Your task to perform on an android device: What is the news today? Image 0: 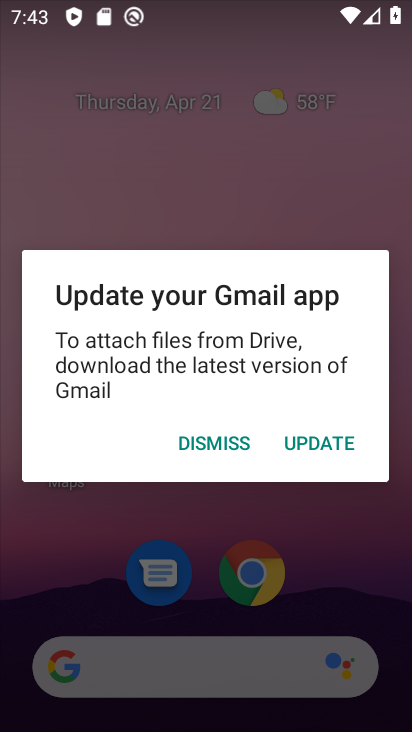
Step 0: press home button
Your task to perform on an android device: What is the news today? Image 1: 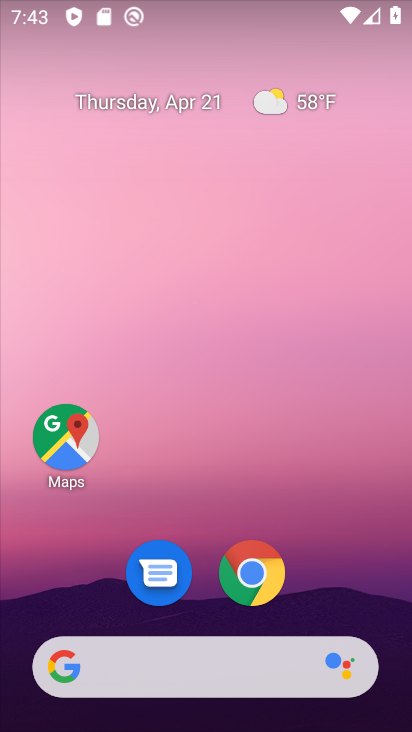
Step 1: drag from (169, 637) to (189, 302)
Your task to perform on an android device: What is the news today? Image 2: 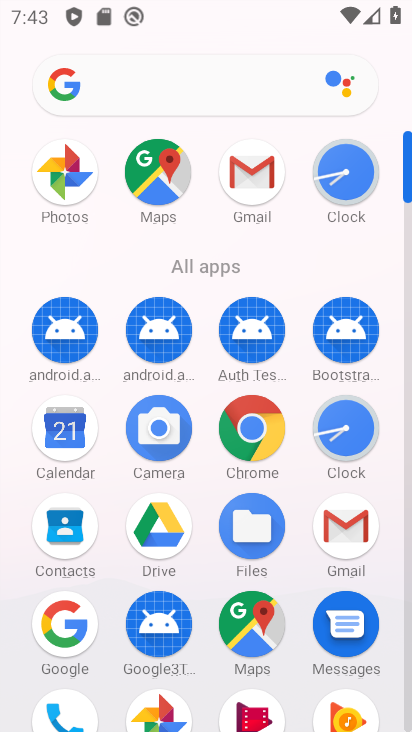
Step 2: click (59, 617)
Your task to perform on an android device: What is the news today? Image 3: 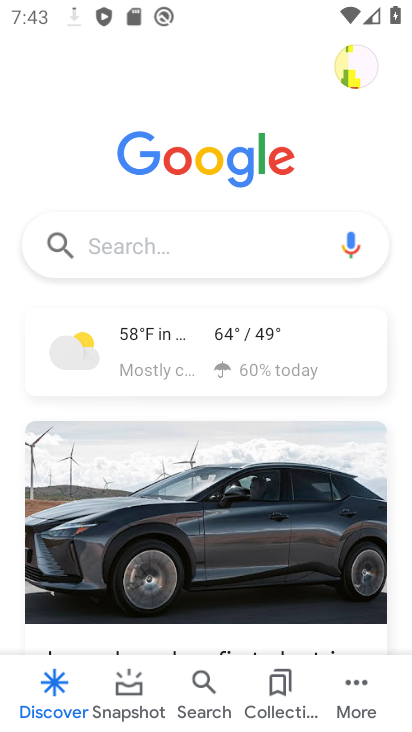
Step 3: click (155, 243)
Your task to perform on an android device: What is the news today? Image 4: 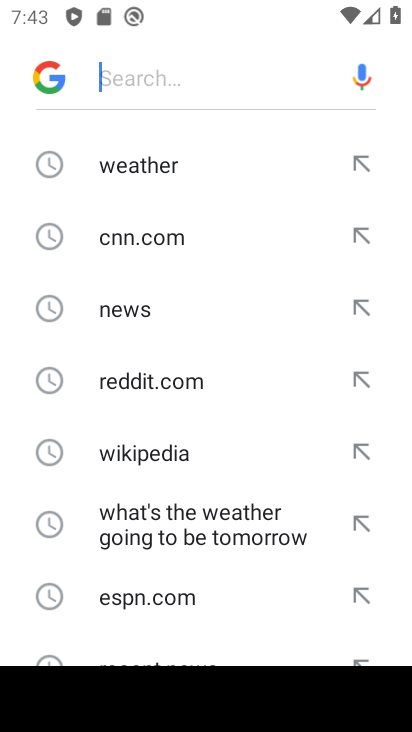
Step 4: drag from (157, 593) to (174, 300)
Your task to perform on an android device: What is the news today? Image 5: 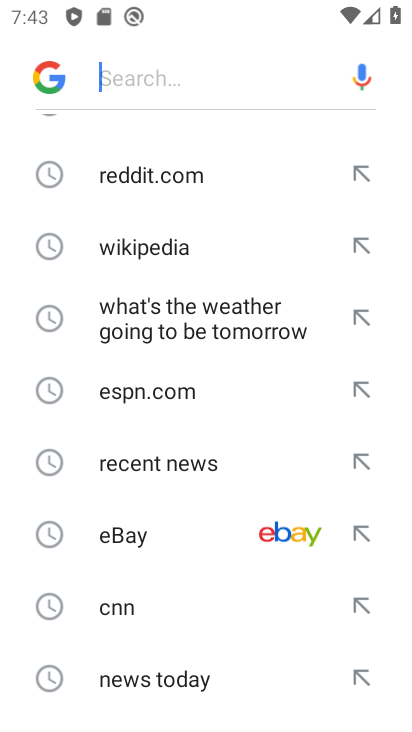
Step 5: click (187, 682)
Your task to perform on an android device: What is the news today? Image 6: 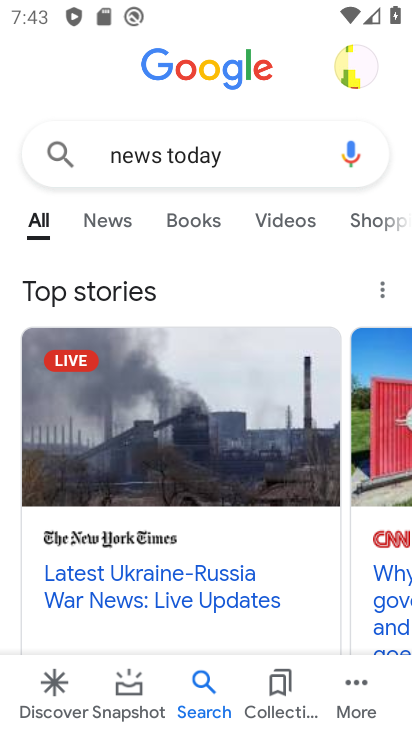
Step 6: drag from (202, 597) to (192, 281)
Your task to perform on an android device: What is the news today? Image 7: 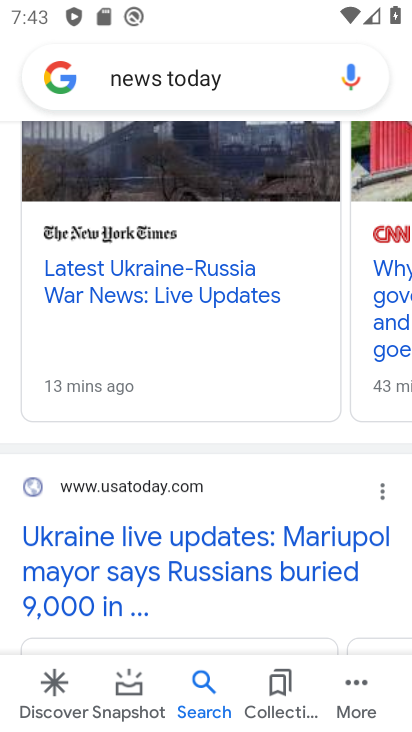
Step 7: drag from (154, 597) to (162, 390)
Your task to perform on an android device: What is the news today? Image 8: 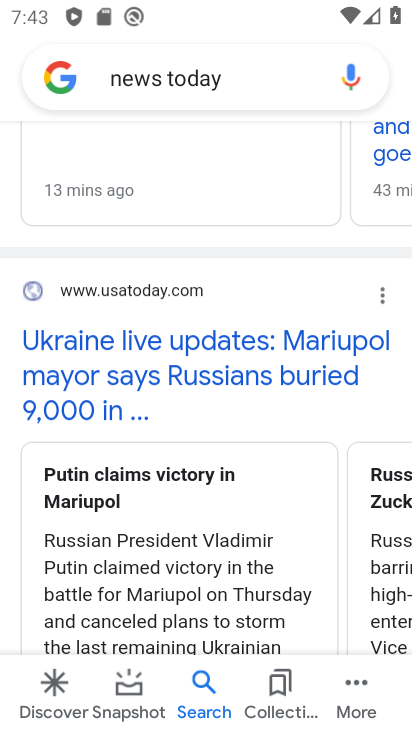
Step 8: click (141, 344)
Your task to perform on an android device: What is the news today? Image 9: 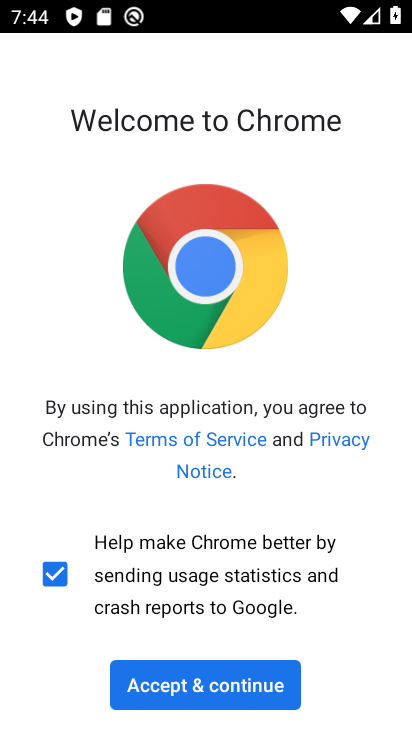
Step 9: task complete